Your task to perform on an android device: Go to Google Image 0: 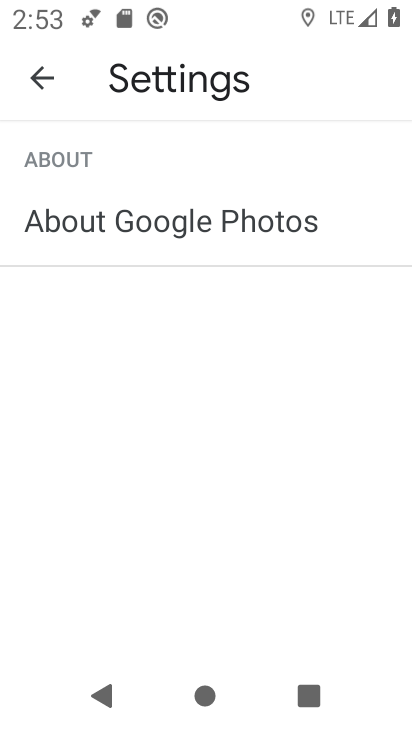
Step 0: press home button
Your task to perform on an android device: Go to Google Image 1: 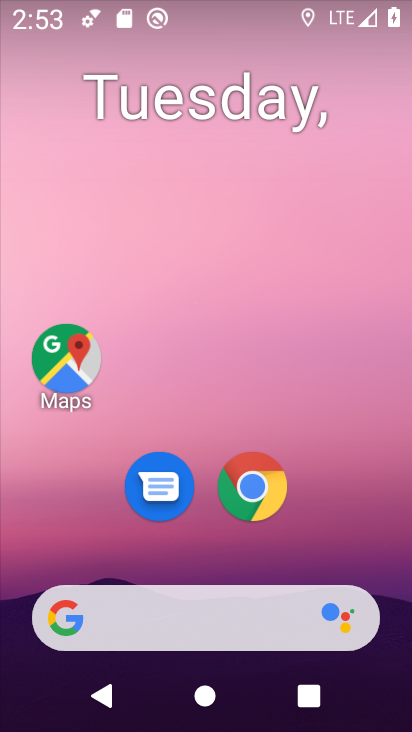
Step 1: drag from (372, 554) to (378, 147)
Your task to perform on an android device: Go to Google Image 2: 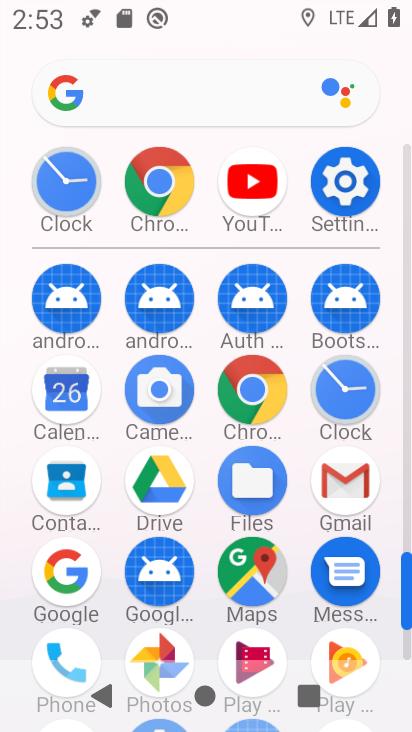
Step 2: click (76, 582)
Your task to perform on an android device: Go to Google Image 3: 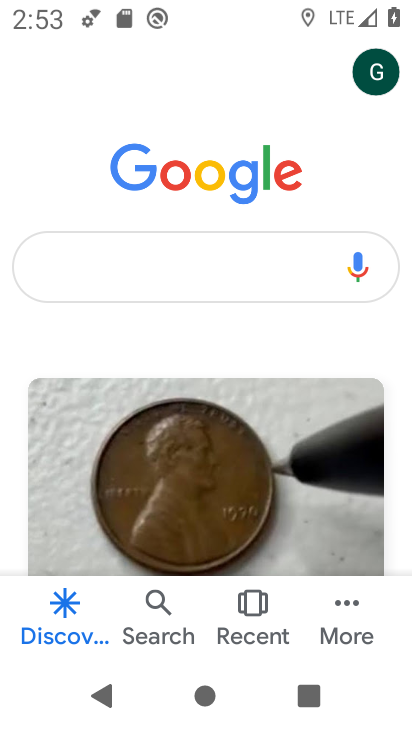
Step 3: task complete